Your task to perform on an android device: Is it going to rain this weekend? Image 0: 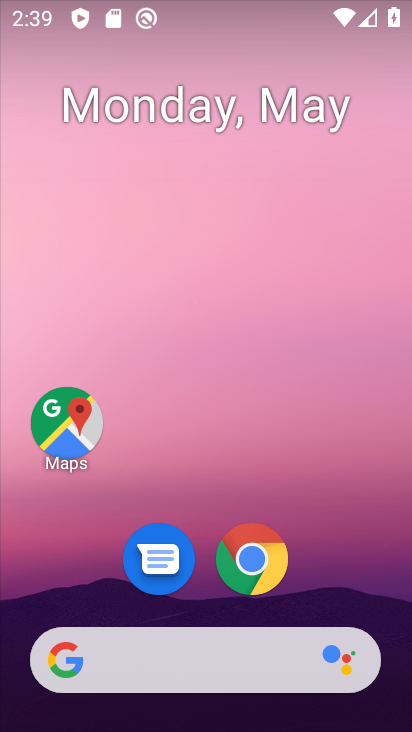
Step 0: drag from (349, 536) to (362, 45)
Your task to perform on an android device: Is it going to rain this weekend? Image 1: 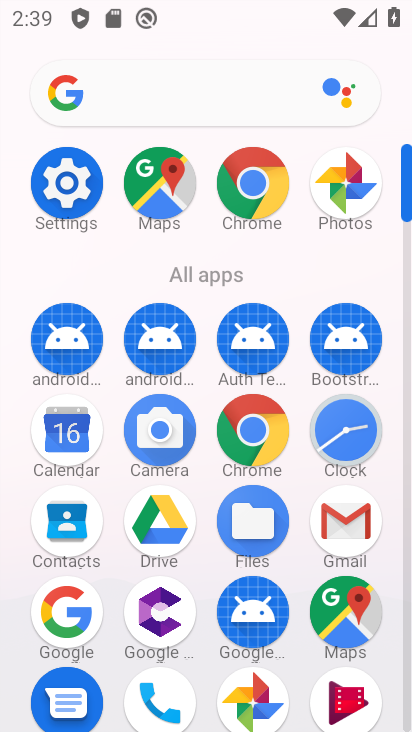
Step 1: click (250, 178)
Your task to perform on an android device: Is it going to rain this weekend? Image 2: 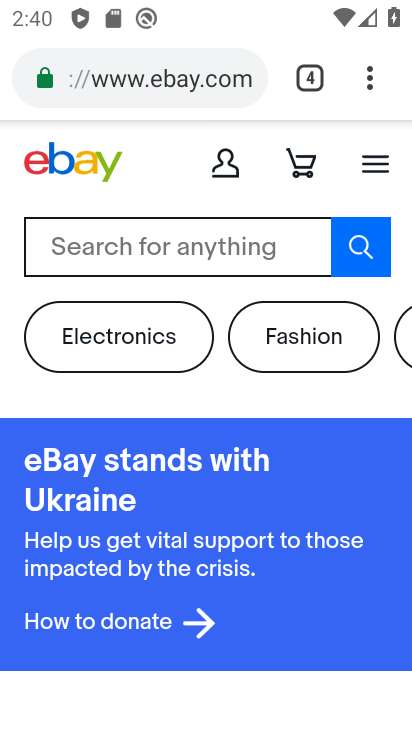
Step 2: click (178, 82)
Your task to perform on an android device: Is it going to rain this weekend? Image 3: 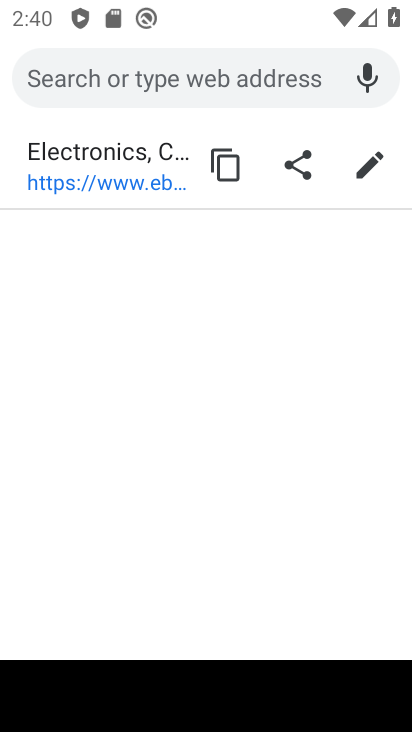
Step 3: type "Is it going to rain this weekend?"
Your task to perform on an android device: Is it going to rain this weekend? Image 4: 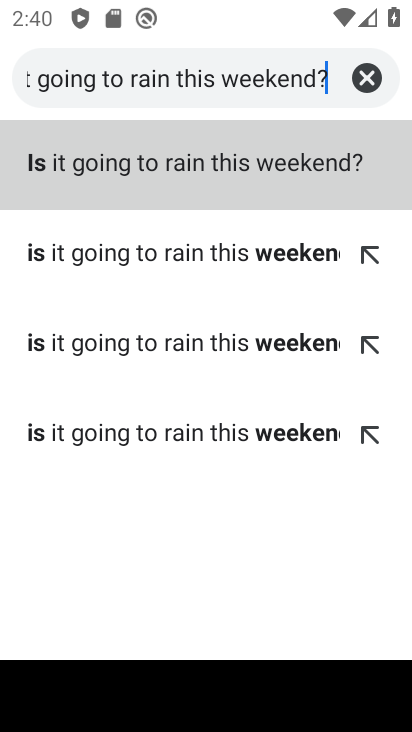
Step 4: click (301, 162)
Your task to perform on an android device: Is it going to rain this weekend? Image 5: 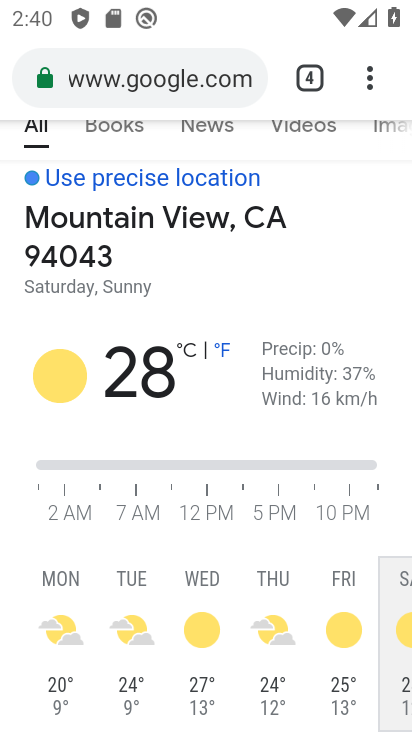
Step 5: task complete